Your task to perform on an android device: turn on data saver in the chrome app Image 0: 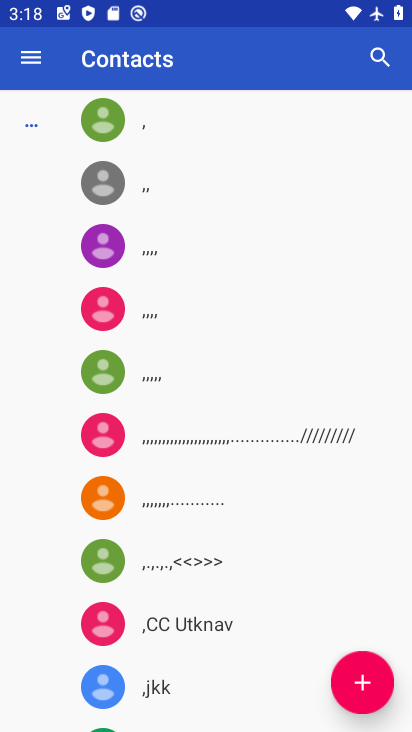
Step 0: press back button
Your task to perform on an android device: turn on data saver in the chrome app Image 1: 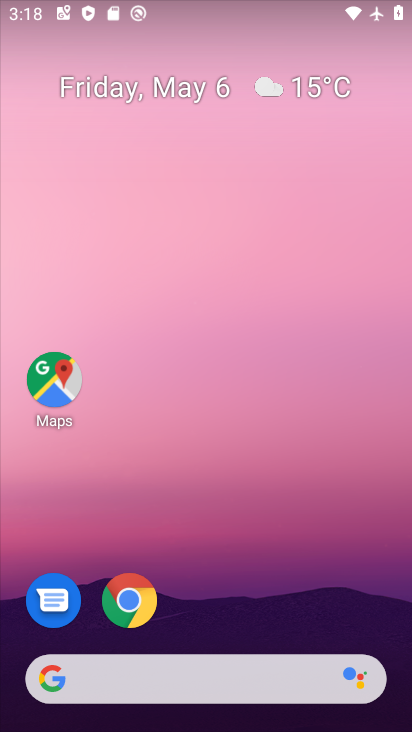
Step 1: drag from (273, 592) to (247, 1)
Your task to perform on an android device: turn on data saver in the chrome app Image 2: 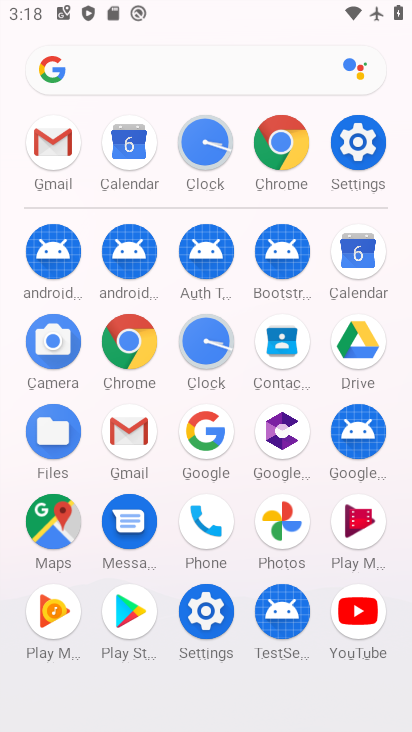
Step 2: drag from (5, 617) to (0, 266)
Your task to perform on an android device: turn on data saver in the chrome app Image 3: 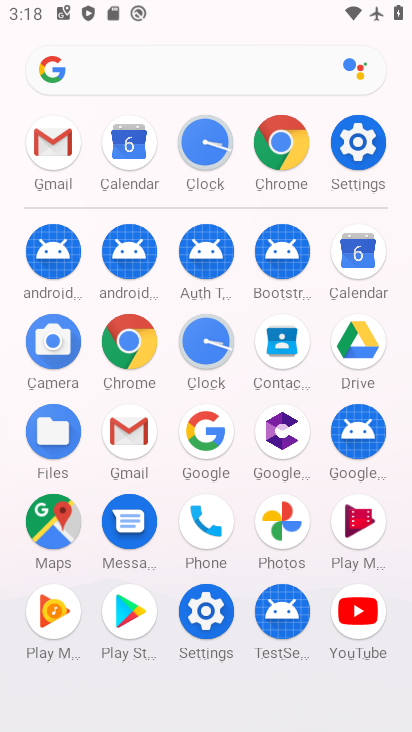
Step 3: drag from (12, 582) to (4, 364)
Your task to perform on an android device: turn on data saver in the chrome app Image 4: 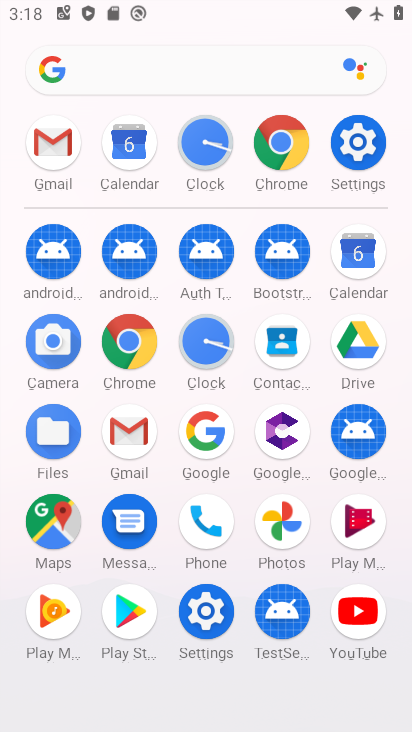
Step 4: click (125, 338)
Your task to perform on an android device: turn on data saver in the chrome app Image 5: 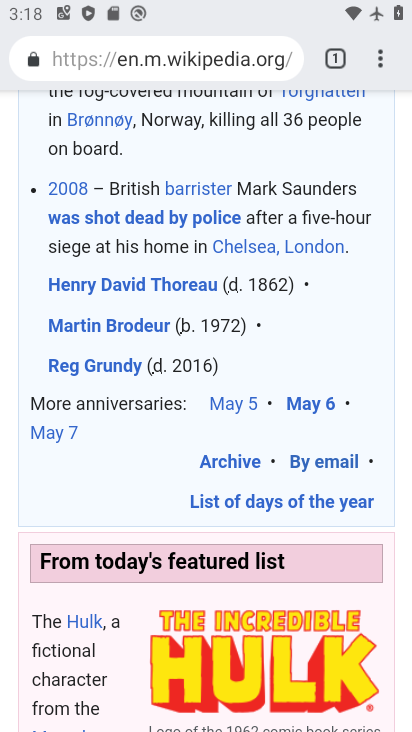
Step 5: drag from (340, 150) to (348, 512)
Your task to perform on an android device: turn on data saver in the chrome app Image 6: 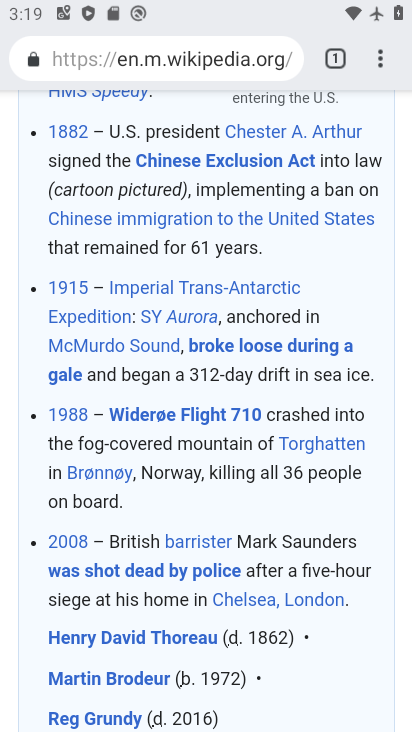
Step 6: drag from (380, 45) to (187, 625)
Your task to perform on an android device: turn on data saver in the chrome app Image 7: 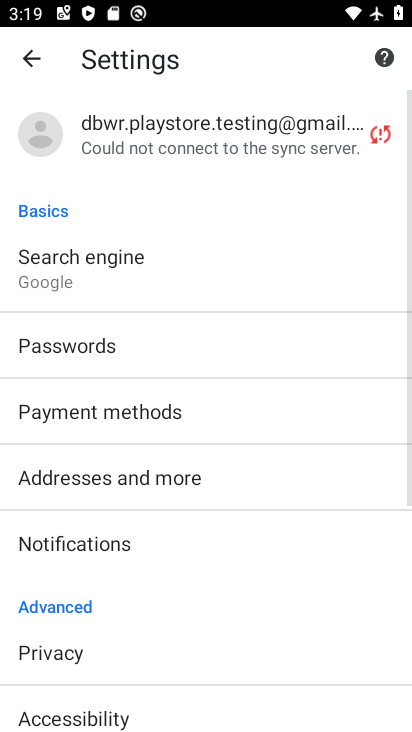
Step 7: drag from (240, 641) to (240, 241)
Your task to perform on an android device: turn on data saver in the chrome app Image 8: 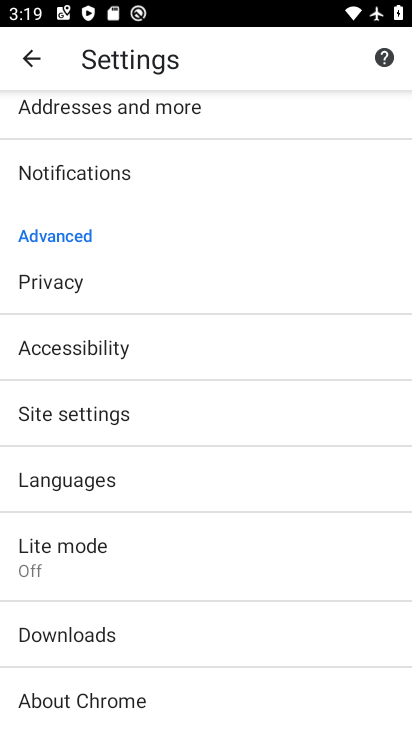
Step 8: click (122, 539)
Your task to perform on an android device: turn on data saver in the chrome app Image 9: 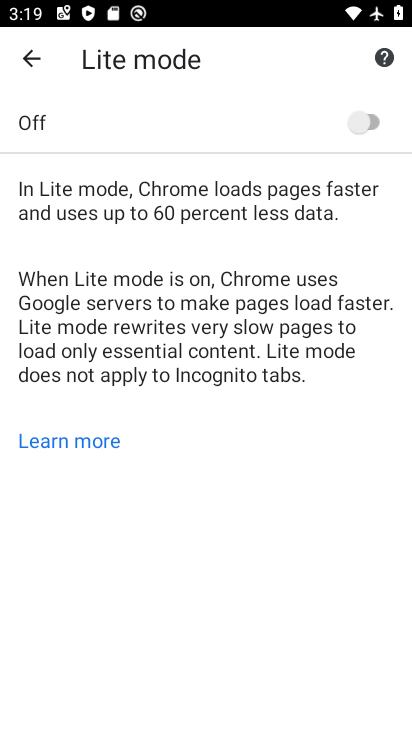
Step 9: click (350, 113)
Your task to perform on an android device: turn on data saver in the chrome app Image 10: 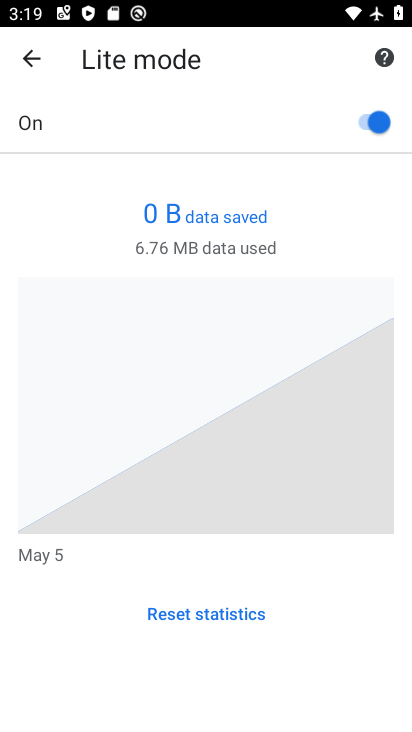
Step 10: task complete